Your task to perform on an android device: Go to calendar. Show me events next week Image 0: 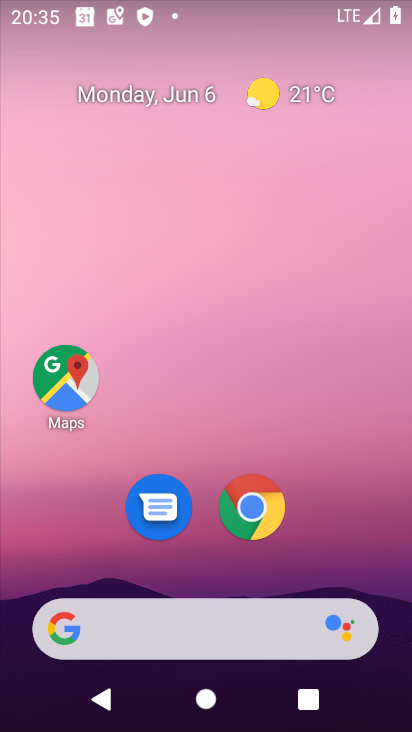
Step 0: drag from (244, 576) to (215, 0)
Your task to perform on an android device: Go to calendar. Show me events next week Image 1: 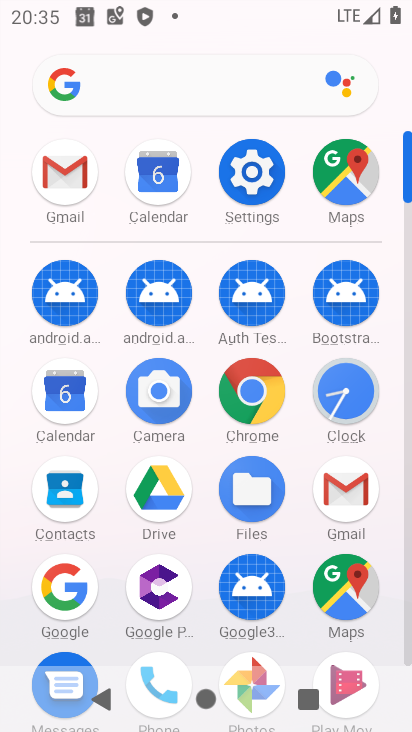
Step 1: click (70, 426)
Your task to perform on an android device: Go to calendar. Show me events next week Image 2: 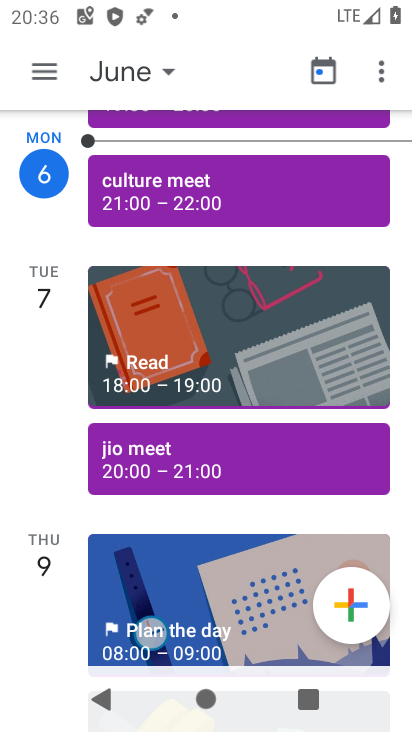
Step 2: click (128, 64)
Your task to perform on an android device: Go to calendar. Show me events next week Image 3: 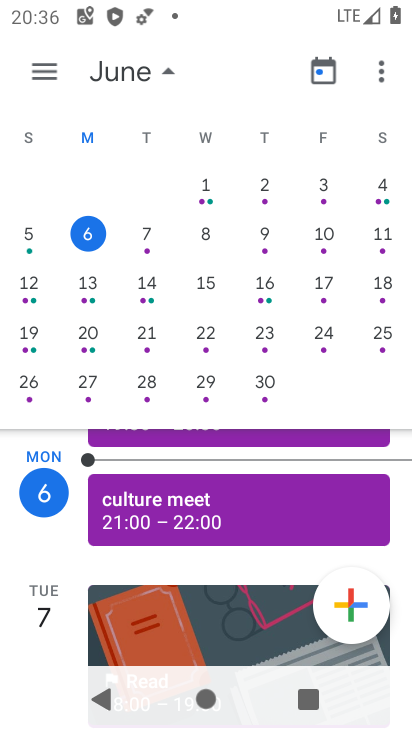
Step 3: drag from (321, 281) to (102, 260)
Your task to perform on an android device: Go to calendar. Show me events next week Image 4: 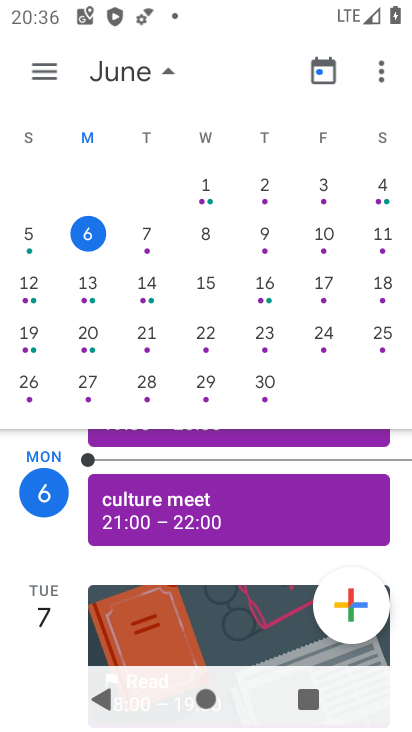
Step 4: drag from (367, 277) to (34, 266)
Your task to perform on an android device: Go to calendar. Show me events next week Image 5: 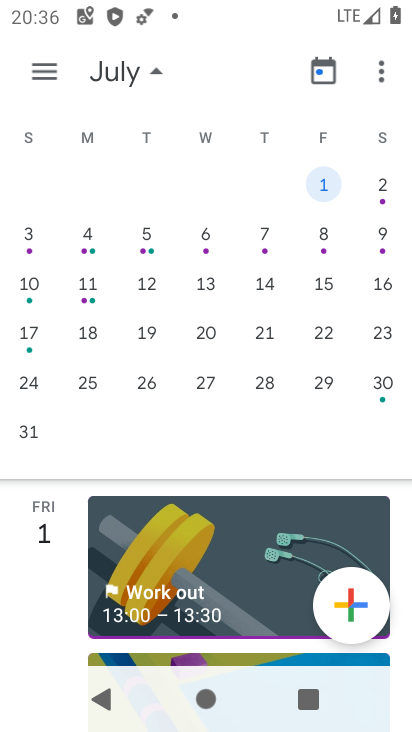
Step 5: click (35, 289)
Your task to perform on an android device: Go to calendar. Show me events next week Image 6: 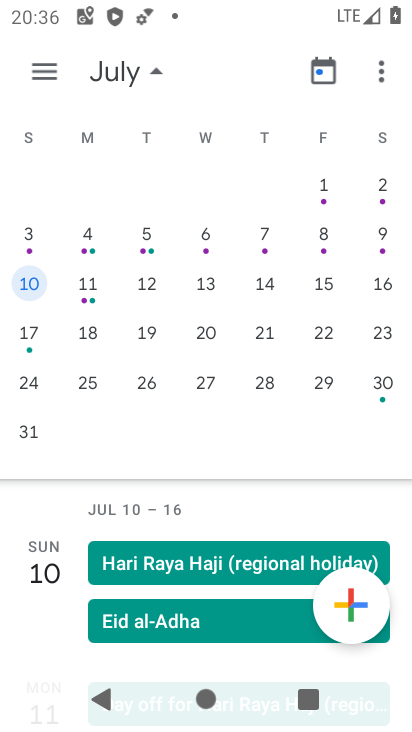
Step 6: click (48, 79)
Your task to perform on an android device: Go to calendar. Show me events next week Image 7: 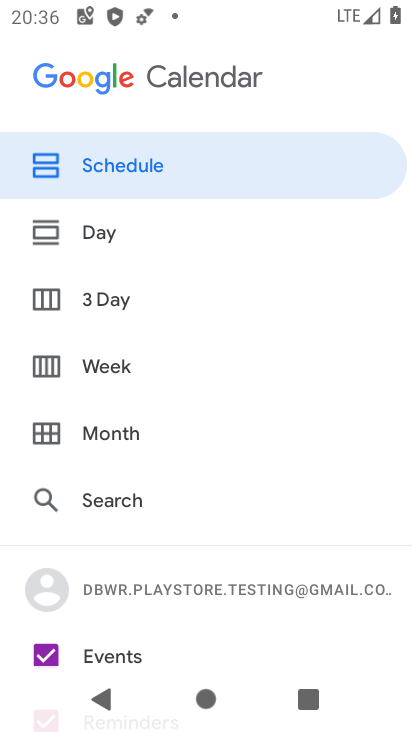
Step 7: click (116, 374)
Your task to perform on an android device: Go to calendar. Show me events next week Image 8: 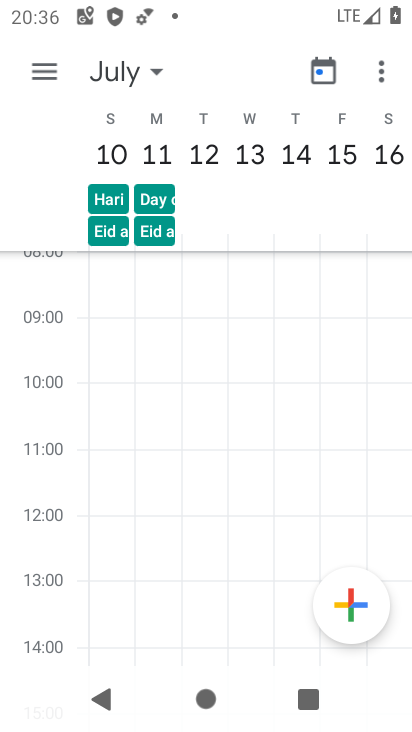
Step 8: task complete